Your task to perform on an android device: toggle airplane mode Image 0: 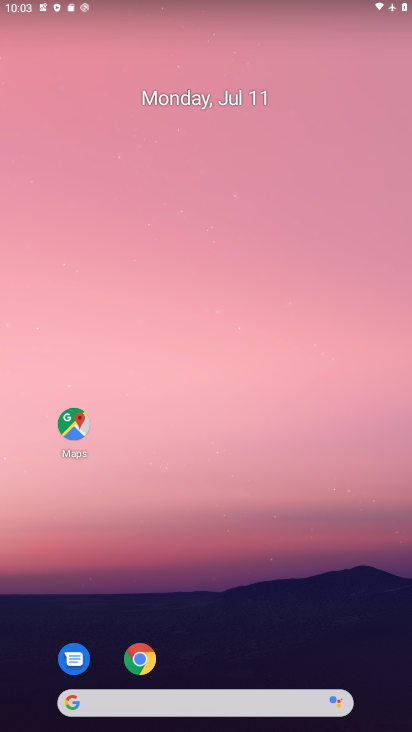
Step 0: drag from (223, 720) to (211, 153)
Your task to perform on an android device: toggle airplane mode Image 1: 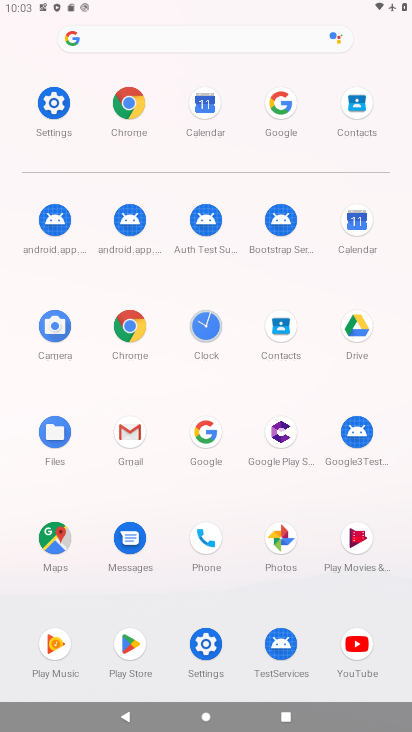
Step 1: click (56, 114)
Your task to perform on an android device: toggle airplane mode Image 2: 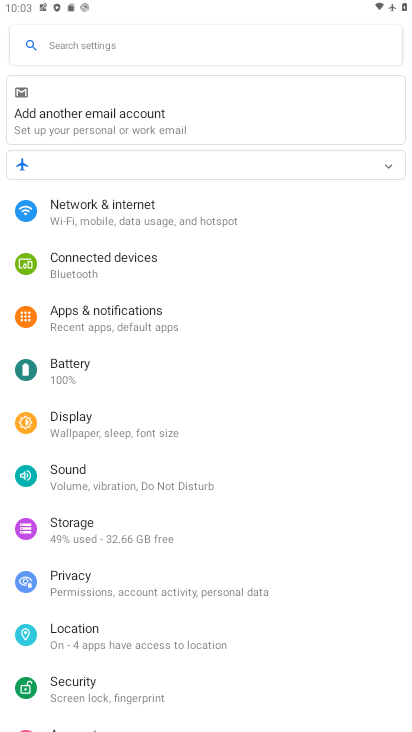
Step 2: click (129, 223)
Your task to perform on an android device: toggle airplane mode Image 3: 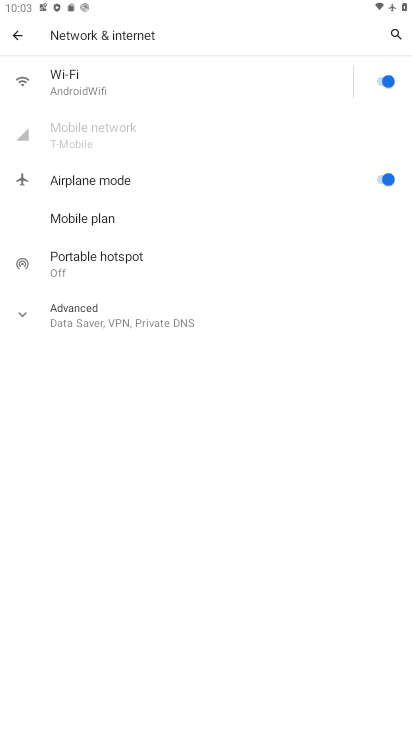
Step 3: click (386, 179)
Your task to perform on an android device: toggle airplane mode Image 4: 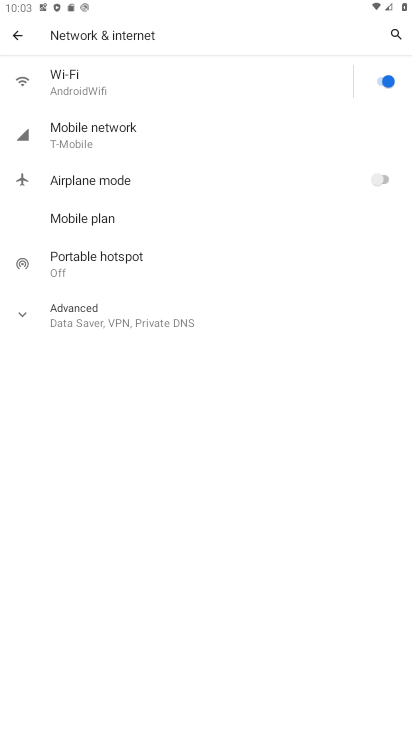
Step 4: task complete